Your task to perform on an android device: read, delete, or share a saved page in the chrome app Image 0: 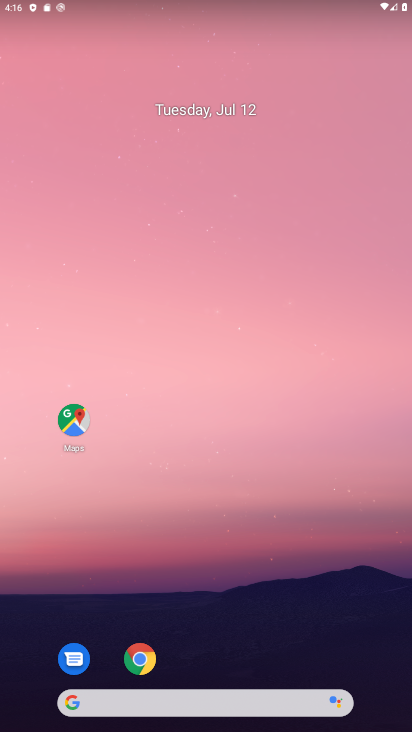
Step 0: click (143, 651)
Your task to perform on an android device: read, delete, or share a saved page in the chrome app Image 1: 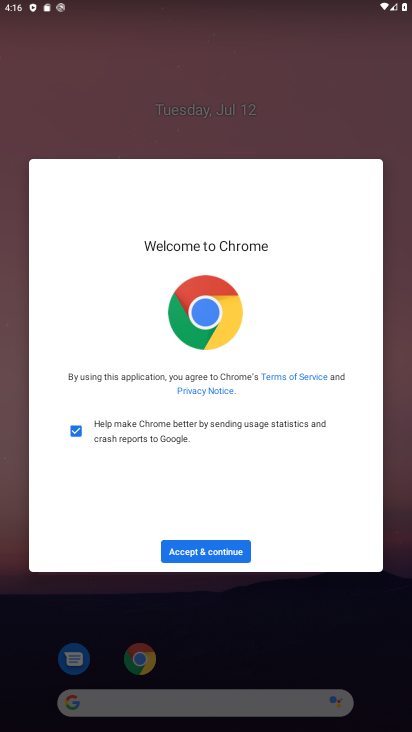
Step 1: click (192, 547)
Your task to perform on an android device: read, delete, or share a saved page in the chrome app Image 2: 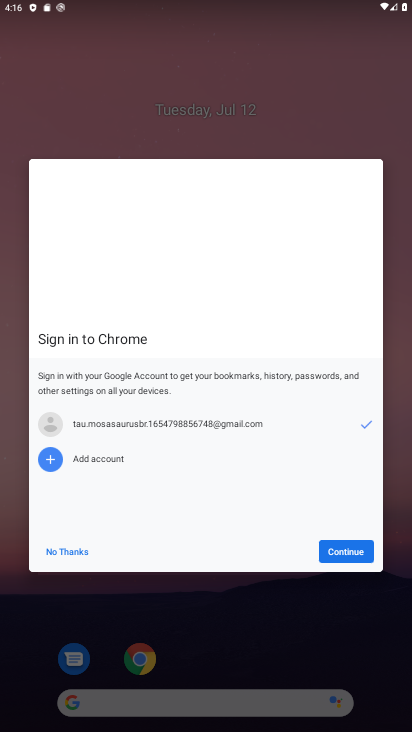
Step 2: click (340, 554)
Your task to perform on an android device: read, delete, or share a saved page in the chrome app Image 3: 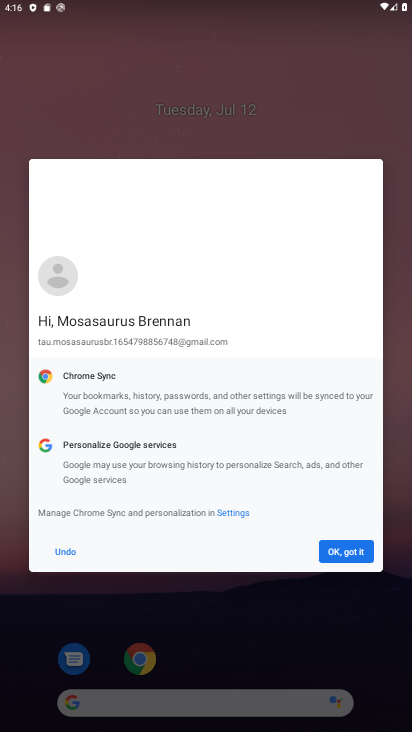
Step 3: click (340, 554)
Your task to perform on an android device: read, delete, or share a saved page in the chrome app Image 4: 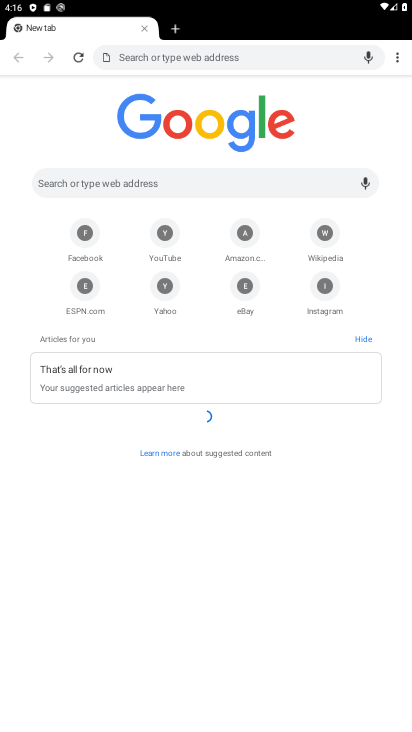
Step 4: click (392, 46)
Your task to perform on an android device: read, delete, or share a saved page in the chrome app Image 5: 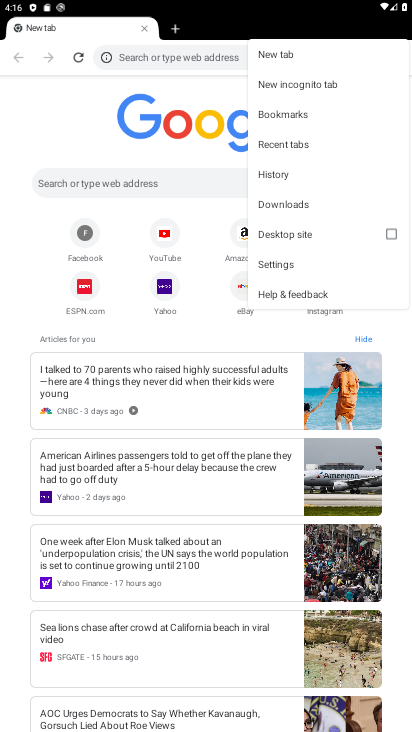
Step 5: click (287, 202)
Your task to perform on an android device: read, delete, or share a saved page in the chrome app Image 6: 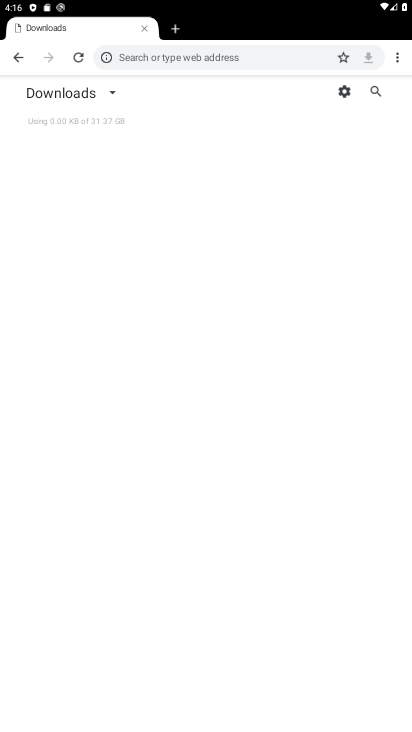
Step 6: click (101, 100)
Your task to perform on an android device: read, delete, or share a saved page in the chrome app Image 7: 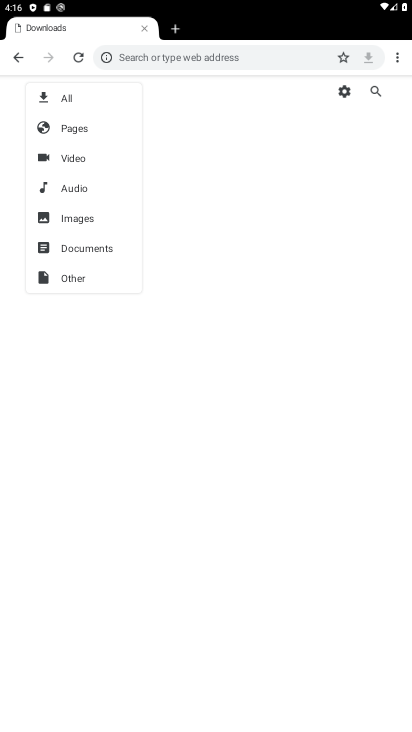
Step 7: click (101, 129)
Your task to perform on an android device: read, delete, or share a saved page in the chrome app Image 8: 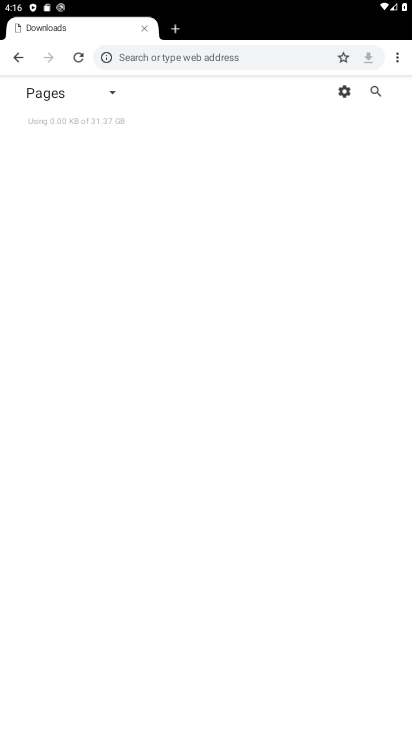
Step 8: task complete